Your task to perform on an android device: search for starred emails in the gmail app Image 0: 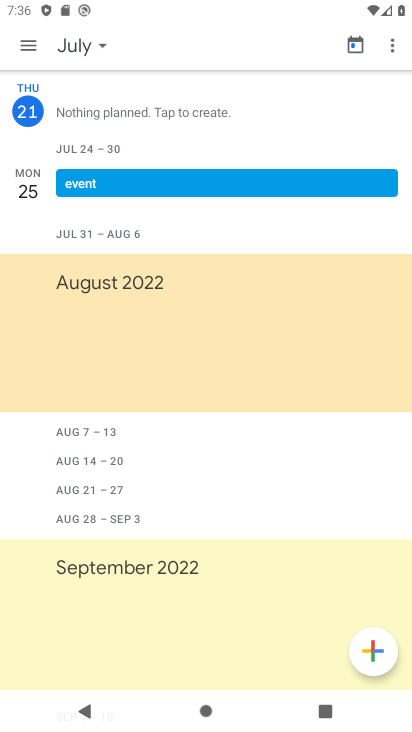
Step 0: press home button
Your task to perform on an android device: search for starred emails in the gmail app Image 1: 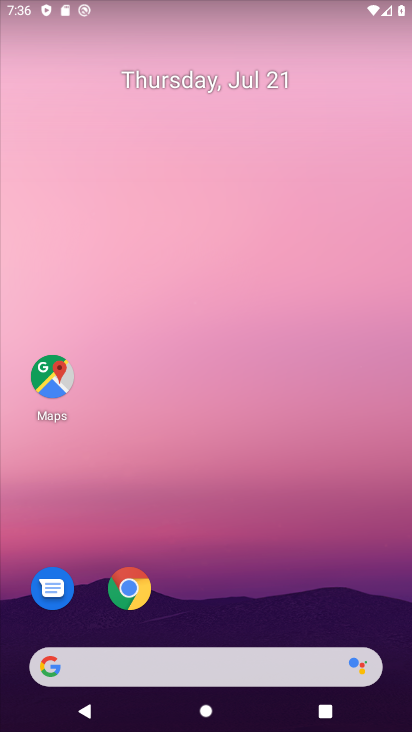
Step 1: drag from (291, 558) to (242, 66)
Your task to perform on an android device: search for starred emails in the gmail app Image 2: 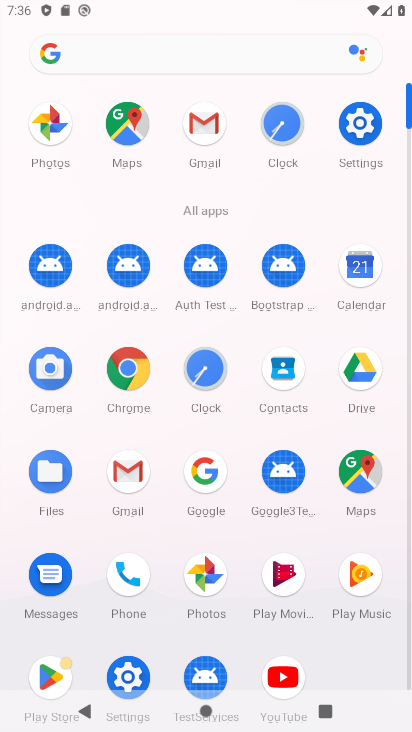
Step 2: click (223, 137)
Your task to perform on an android device: search for starred emails in the gmail app Image 3: 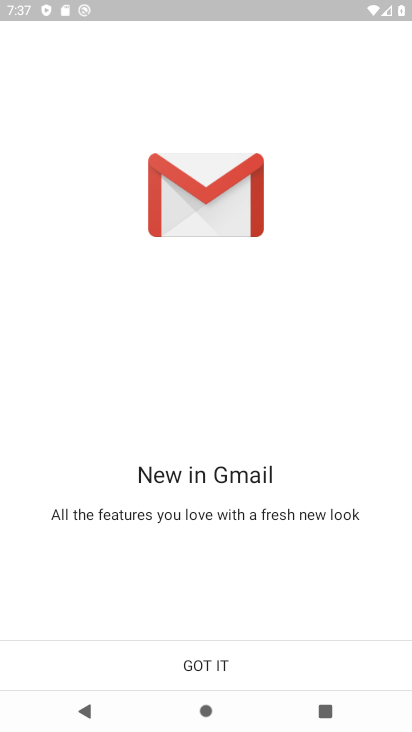
Step 3: click (260, 665)
Your task to perform on an android device: search for starred emails in the gmail app Image 4: 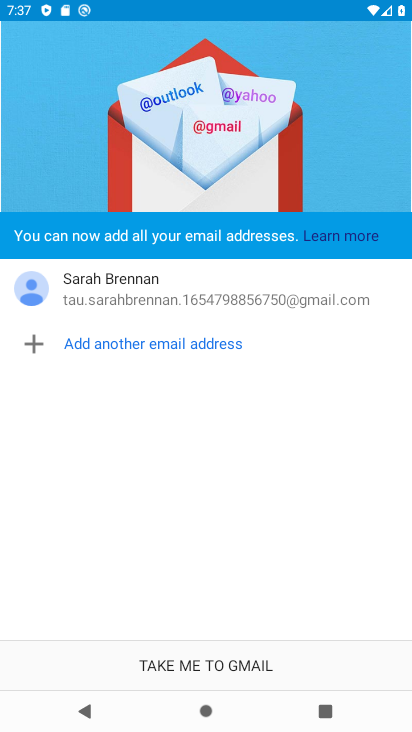
Step 4: click (260, 665)
Your task to perform on an android device: search for starred emails in the gmail app Image 5: 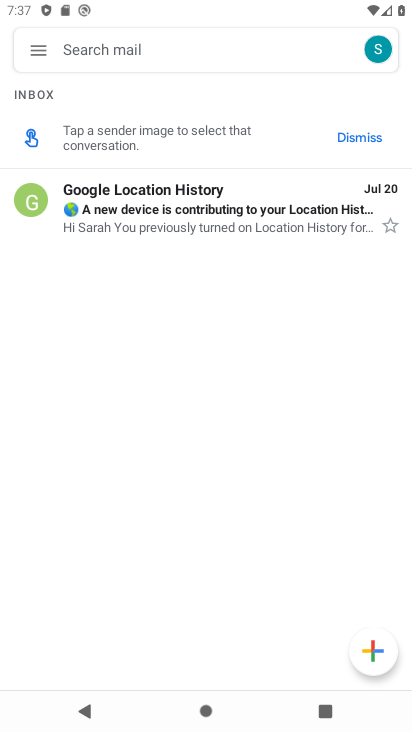
Step 5: click (27, 35)
Your task to perform on an android device: search for starred emails in the gmail app Image 6: 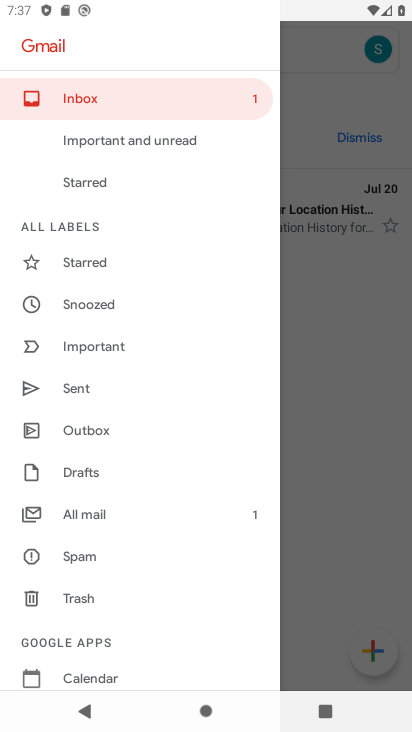
Step 6: click (127, 272)
Your task to perform on an android device: search for starred emails in the gmail app Image 7: 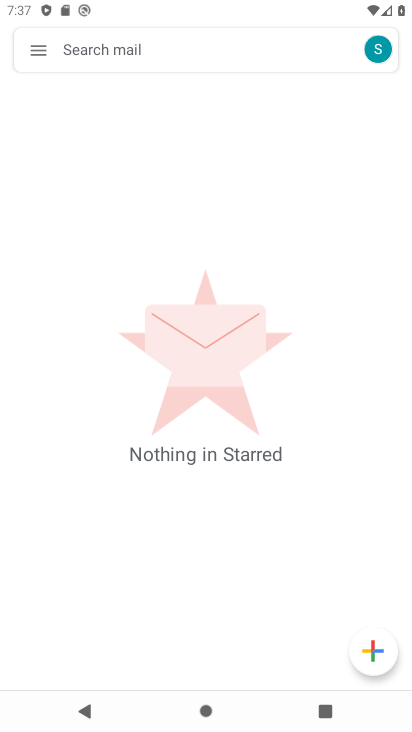
Step 7: task complete